Your task to perform on an android device: Open the stopwatch Image 0: 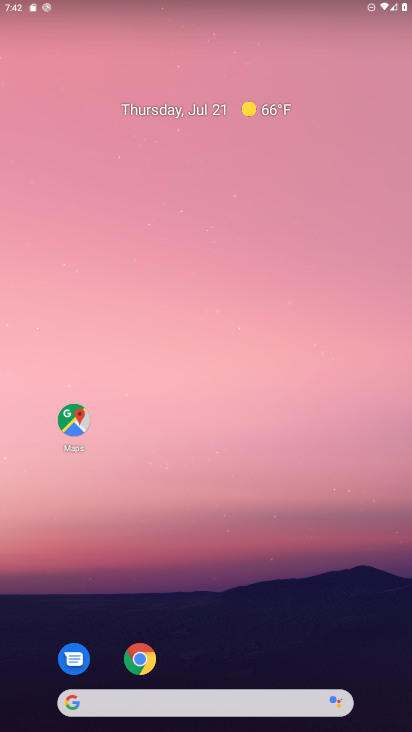
Step 0: drag from (168, 637) to (234, 89)
Your task to perform on an android device: Open the stopwatch Image 1: 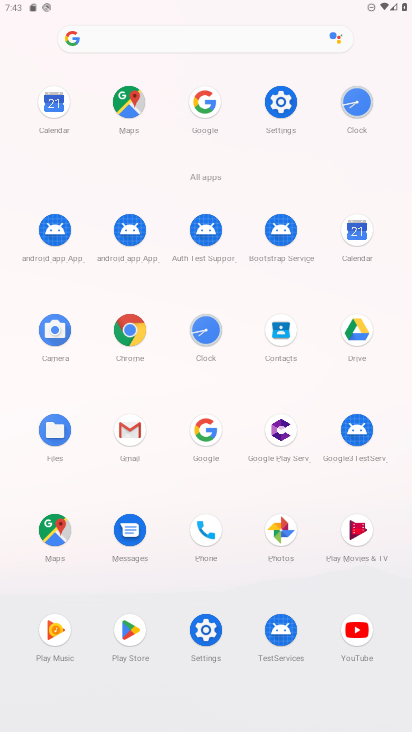
Step 1: click (207, 332)
Your task to perform on an android device: Open the stopwatch Image 2: 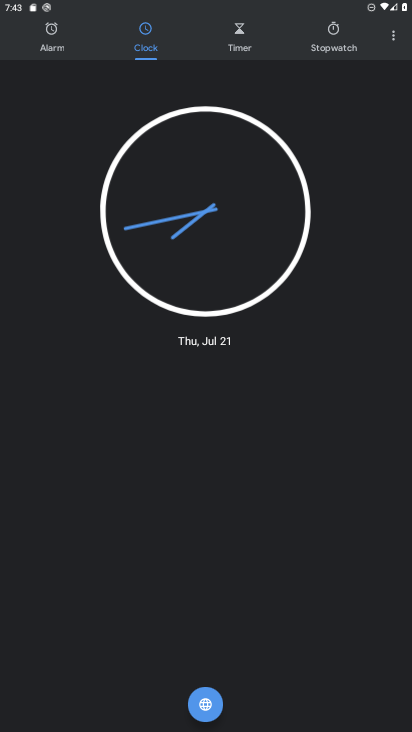
Step 2: click (344, 30)
Your task to perform on an android device: Open the stopwatch Image 3: 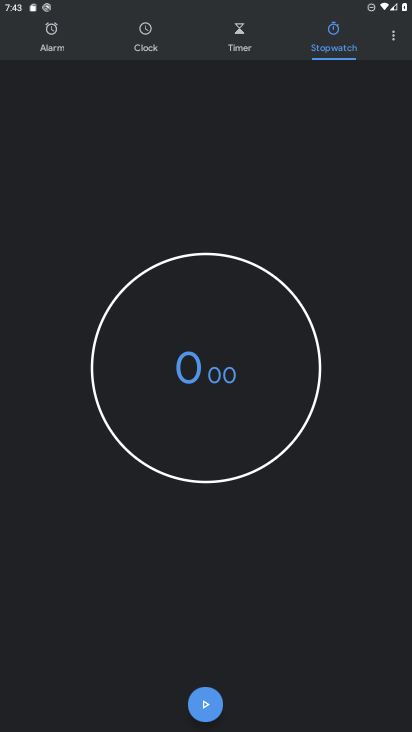
Step 3: click (209, 702)
Your task to perform on an android device: Open the stopwatch Image 4: 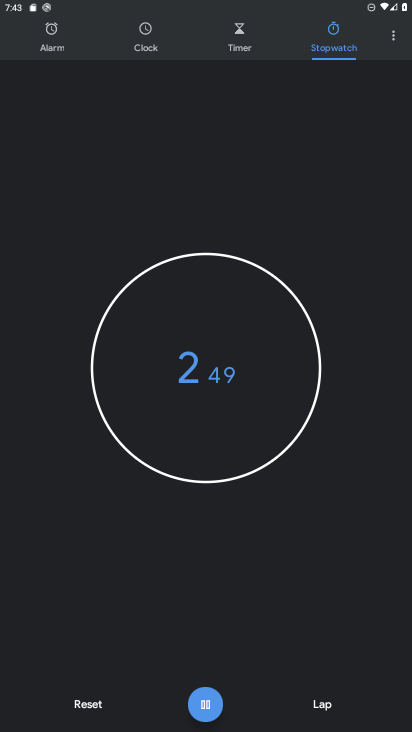
Step 4: task complete